Your task to perform on an android device: move an email to a new category in the gmail app Image 0: 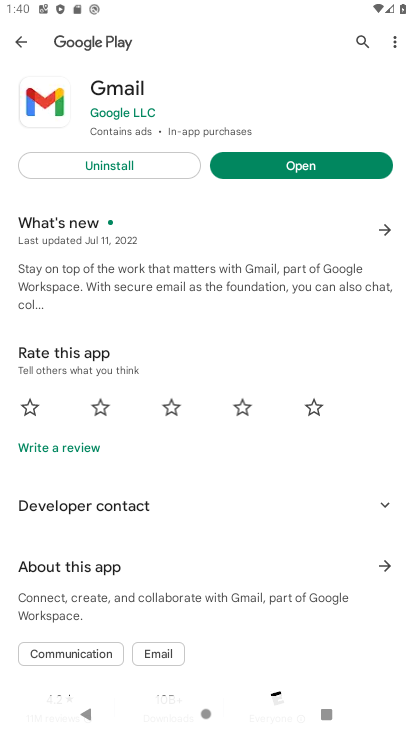
Step 0: press home button
Your task to perform on an android device: move an email to a new category in the gmail app Image 1: 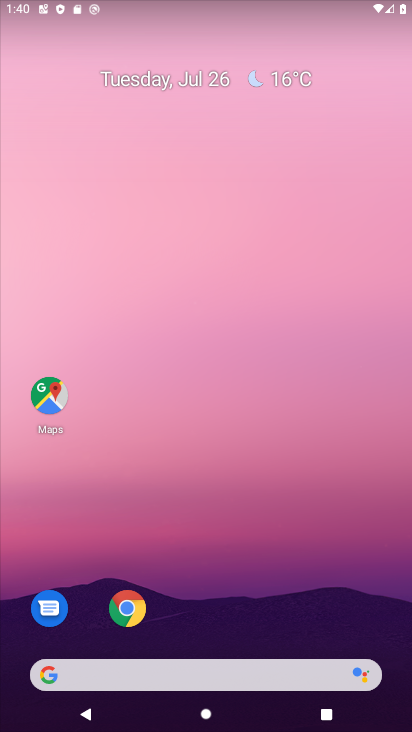
Step 1: drag from (265, 652) to (268, 101)
Your task to perform on an android device: move an email to a new category in the gmail app Image 2: 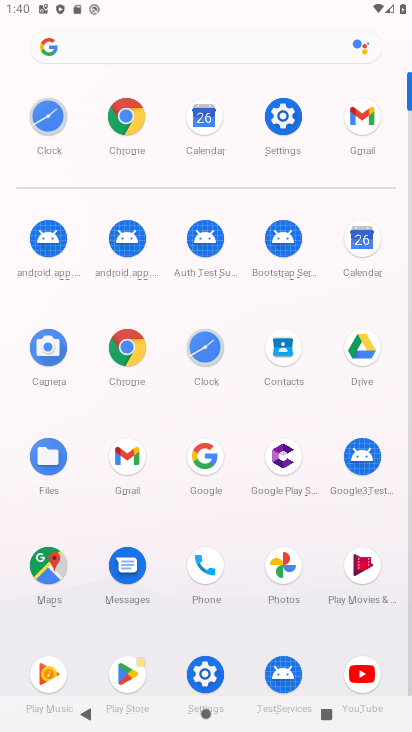
Step 2: click (347, 138)
Your task to perform on an android device: move an email to a new category in the gmail app Image 3: 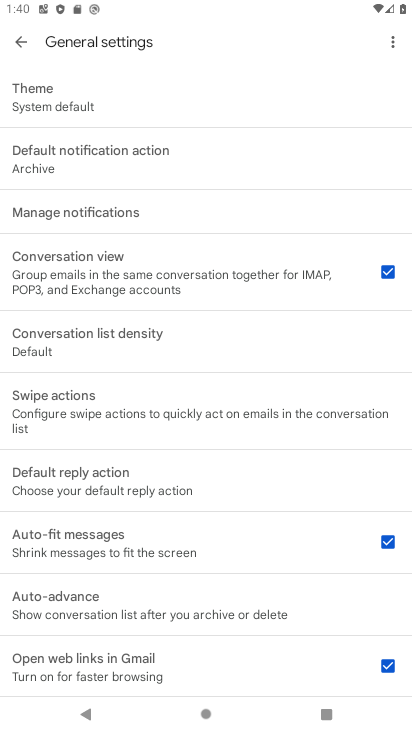
Step 3: task complete